Your task to perform on an android device: Go to settings Image 0: 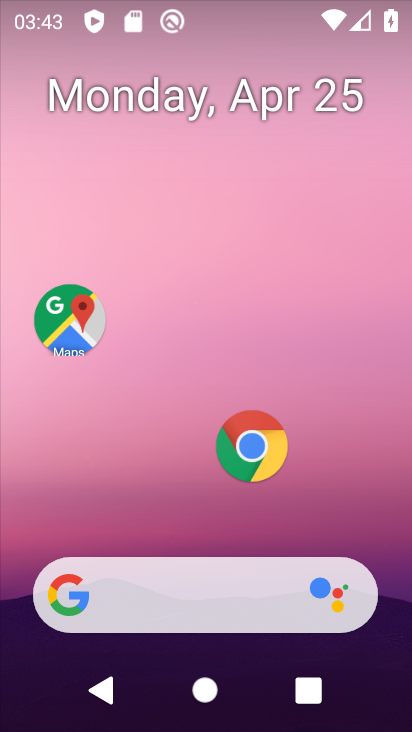
Step 0: drag from (165, 488) to (221, 87)
Your task to perform on an android device: Go to settings Image 1: 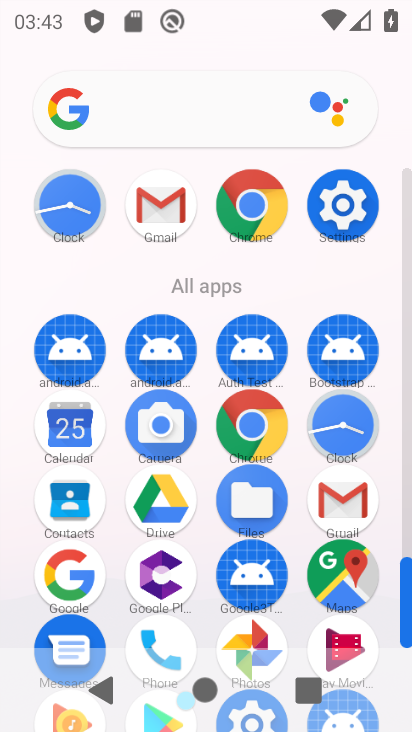
Step 1: click (344, 223)
Your task to perform on an android device: Go to settings Image 2: 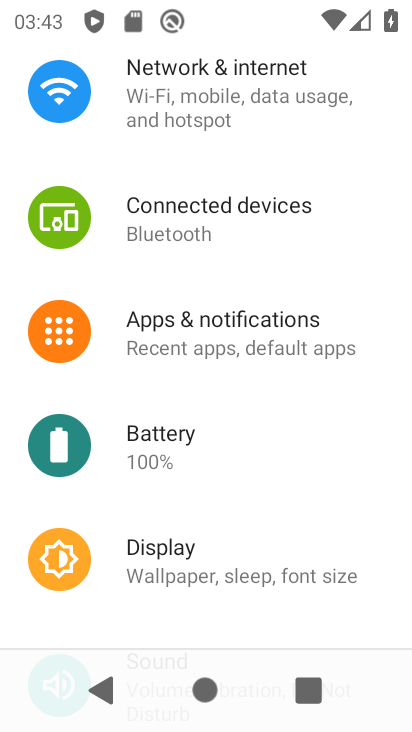
Step 2: task complete